Your task to perform on an android device: toggle airplane mode Image 0: 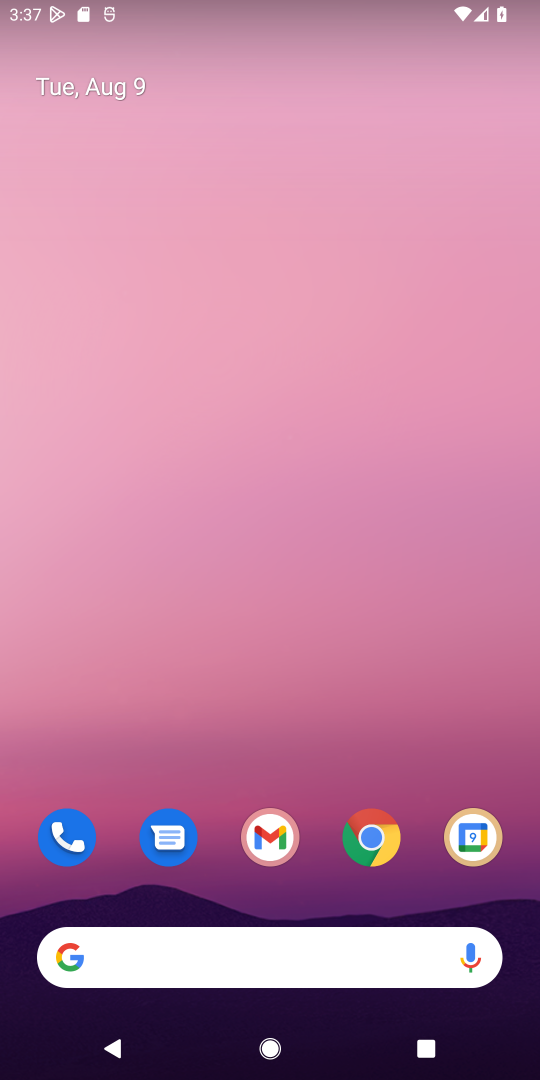
Step 0: drag from (375, 907) to (367, 110)
Your task to perform on an android device: toggle airplane mode Image 1: 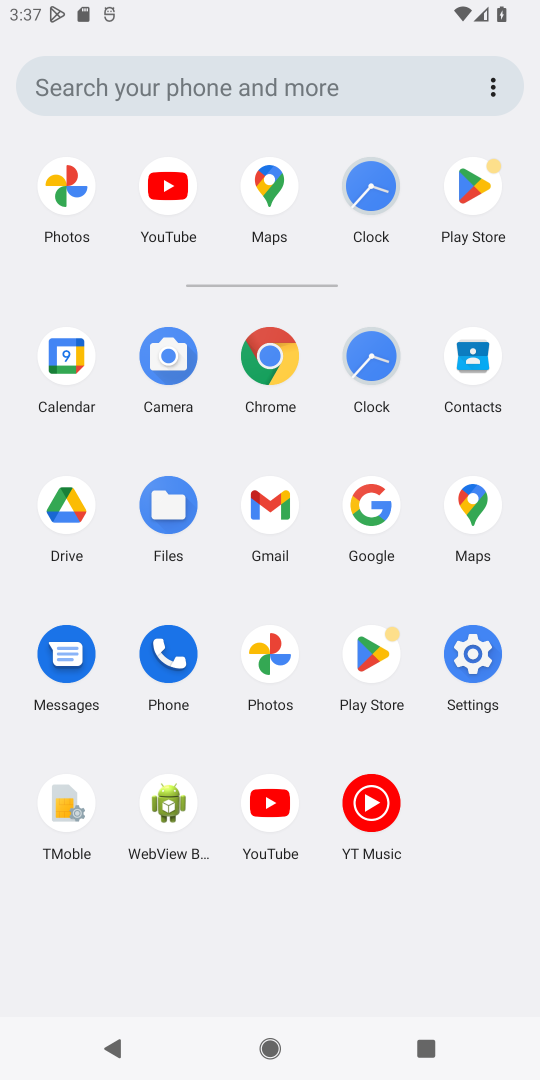
Step 1: click (464, 636)
Your task to perform on an android device: toggle airplane mode Image 2: 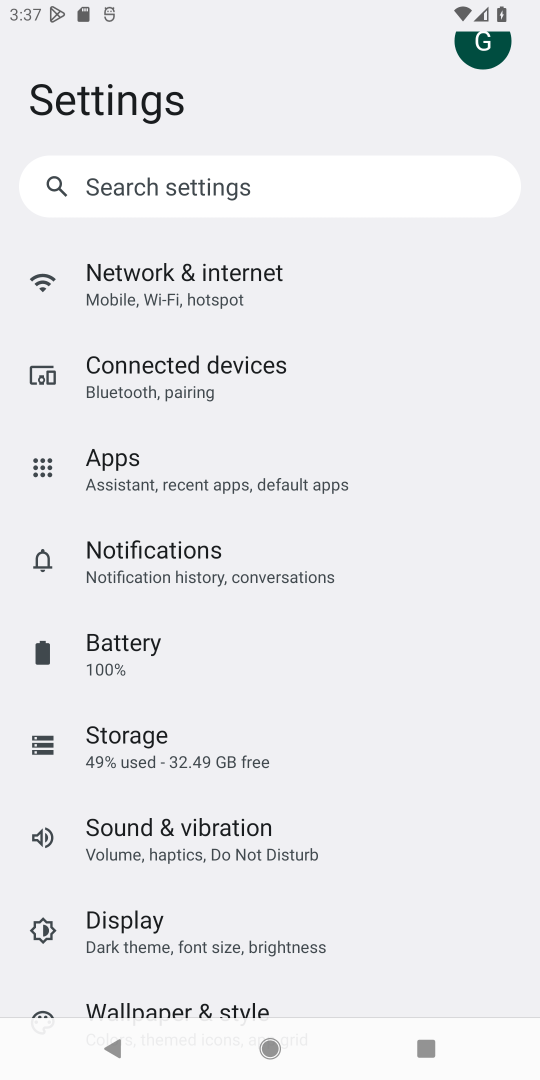
Step 2: click (219, 267)
Your task to perform on an android device: toggle airplane mode Image 3: 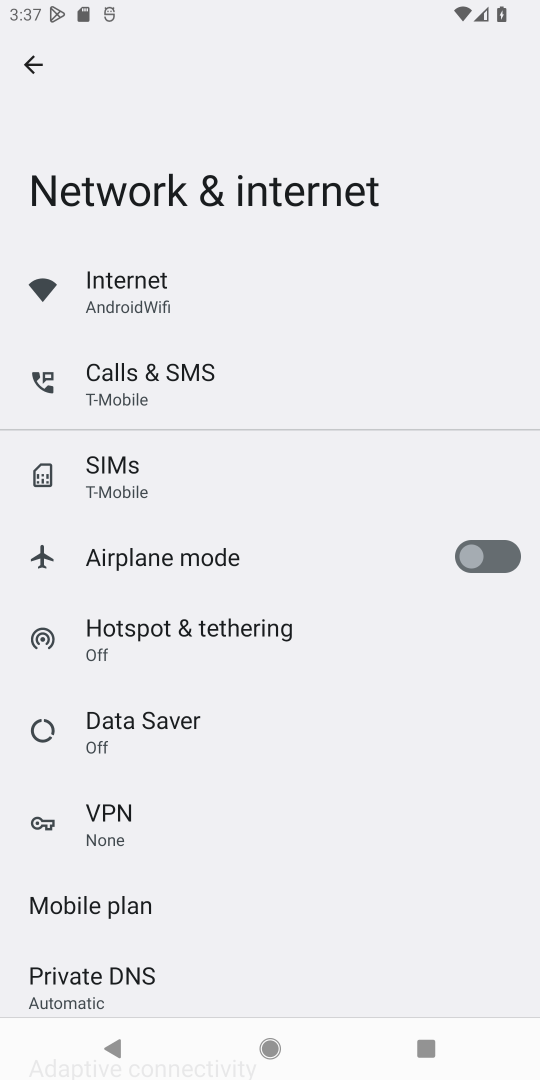
Step 3: click (455, 553)
Your task to perform on an android device: toggle airplane mode Image 4: 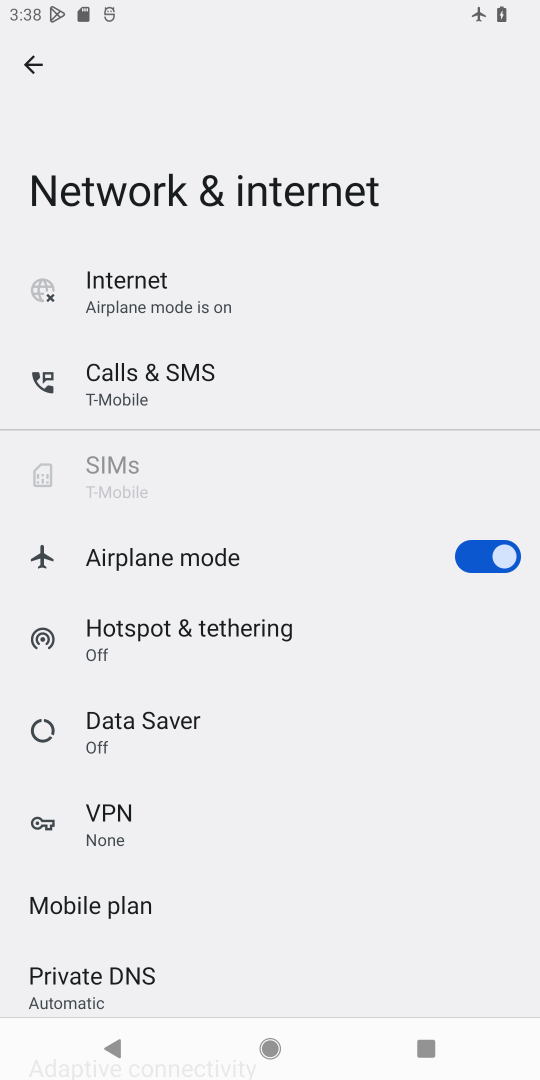
Step 4: task complete